Your task to perform on an android device: Open network settings Image 0: 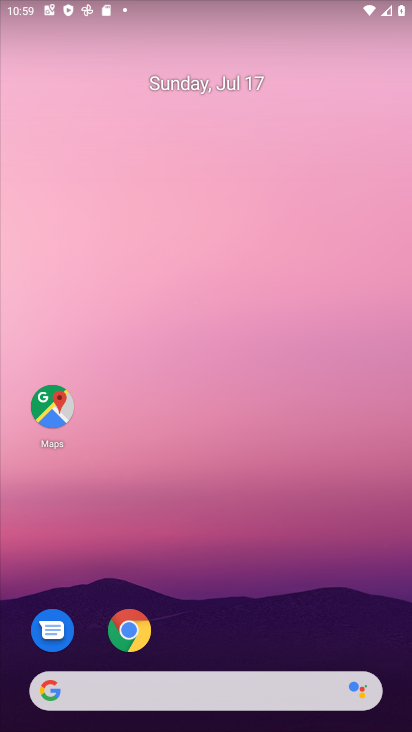
Step 0: drag from (240, 628) to (251, 151)
Your task to perform on an android device: Open network settings Image 1: 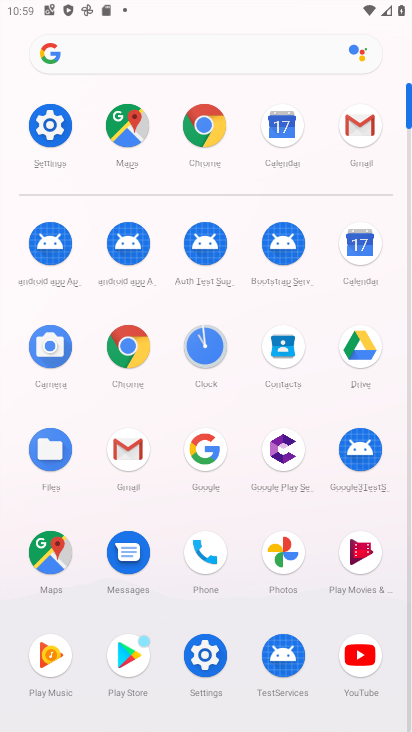
Step 1: click (38, 133)
Your task to perform on an android device: Open network settings Image 2: 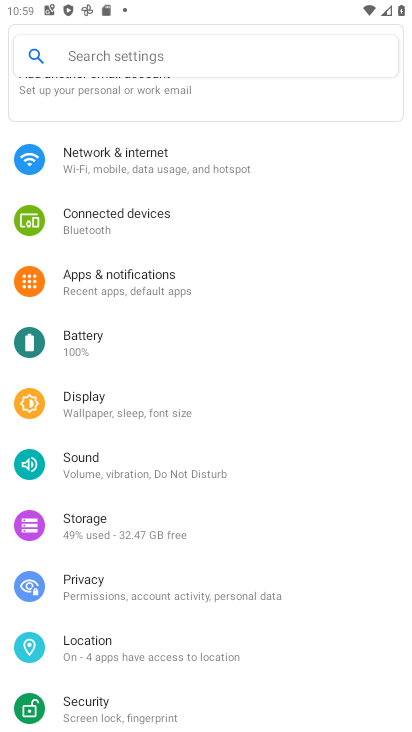
Step 2: click (145, 171)
Your task to perform on an android device: Open network settings Image 3: 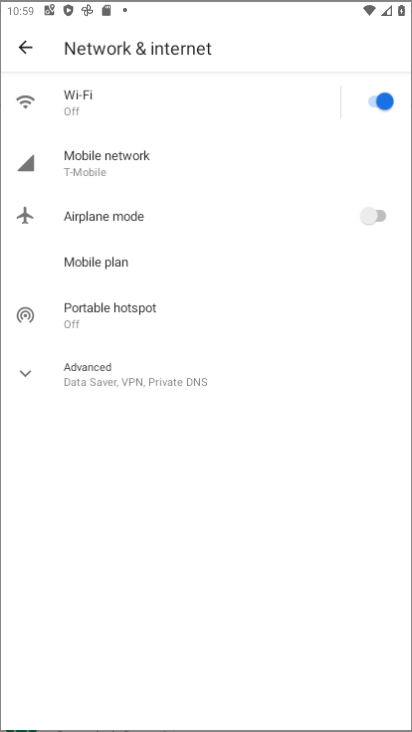
Step 3: task complete